Your task to perform on an android device: Open Youtube and go to the subscriptions tab Image 0: 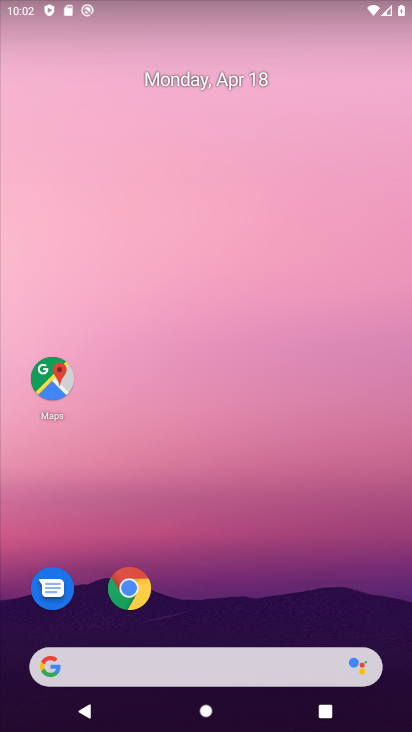
Step 0: drag from (368, 577) to (220, 34)
Your task to perform on an android device: Open Youtube and go to the subscriptions tab Image 1: 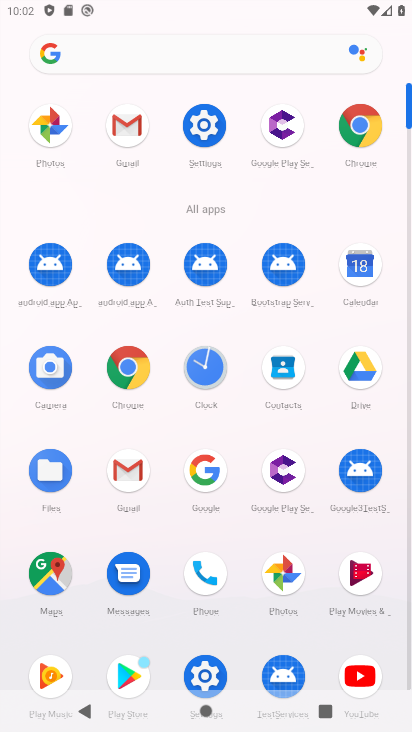
Step 1: drag from (9, 474) to (9, 155)
Your task to perform on an android device: Open Youtube and go to the subscriptions tab Image 2: 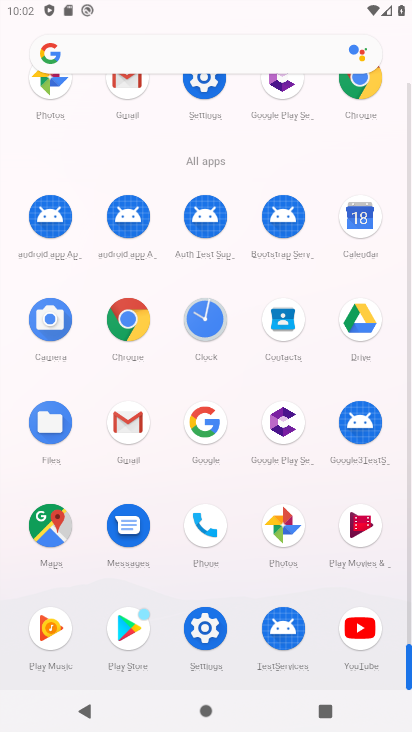
Step 2: click (359, 624)
Your task to perform on an android device: Open Youtube and go to the subscriptions tab Image 3: 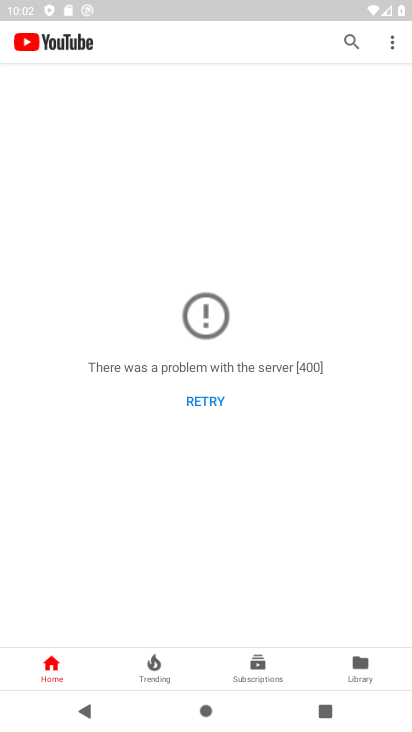
Step 3: click (360, 668)
Your task to perform on an android device: Open Youtube and go to the subscriptions tab Image 4: 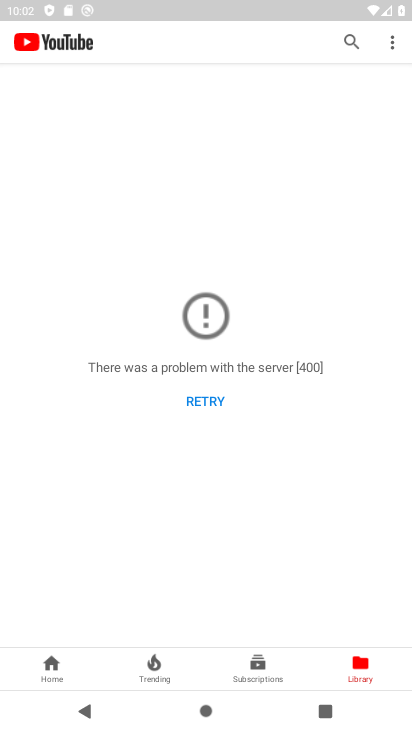
Step 4: click (268, 665)
Your task to perform on an android device: Open Youtube and go to the subscriptions tab Image 5: 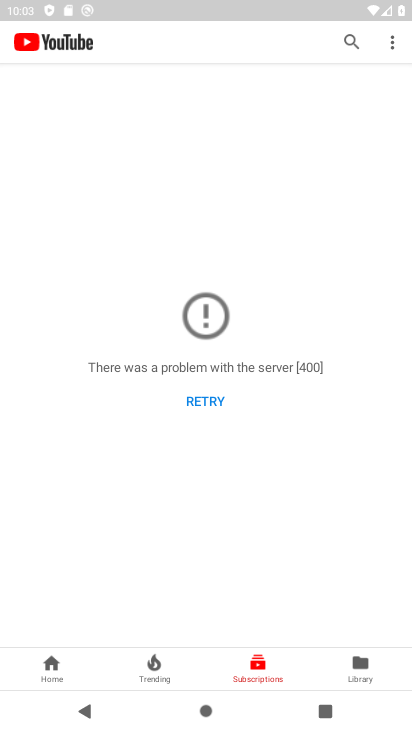
Step 5: task complete